Your task to perform on an android device: toggle notification dots Image 0: 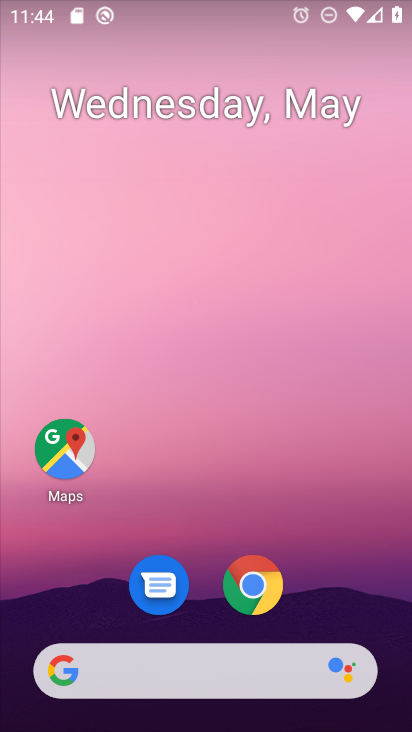
Step 0: drag from (355, 486) to (263, 25)
Your task to perform on an android device: toggle notification dots Image 1: 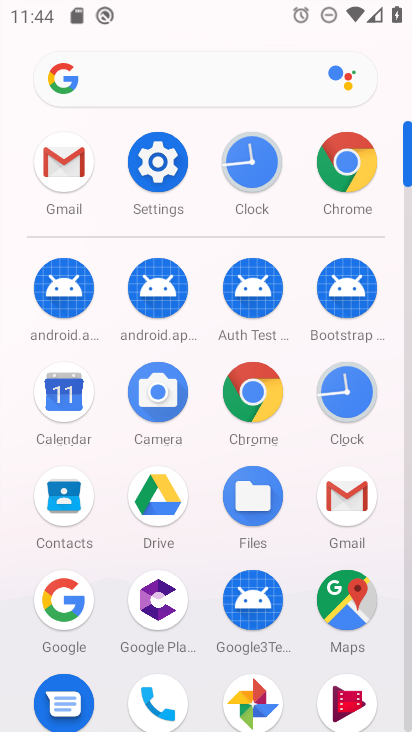
Step 1: click (161, 159)
Your task to perform on an android device: toggle notification dots Image 2: 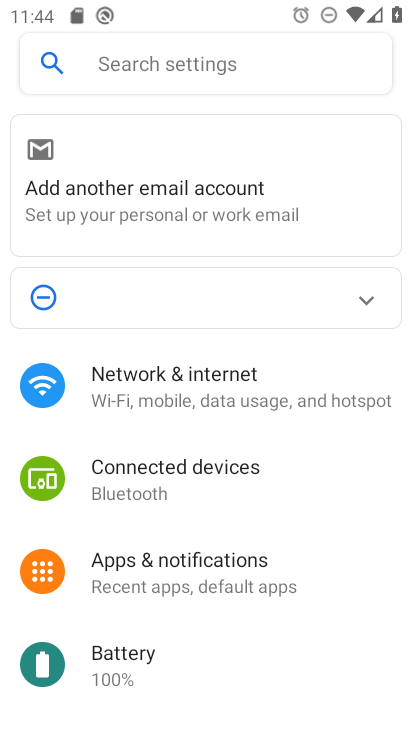
Step 2: click (197, 552)
Your task to perform on an android device: toggle notification dots Image 3: 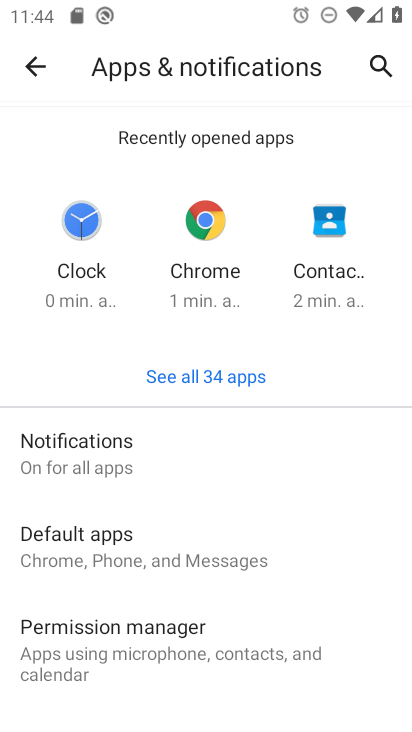
Step 3: click (171, 444)
Your task to perform on an android device: toggle notification dots Image 4: 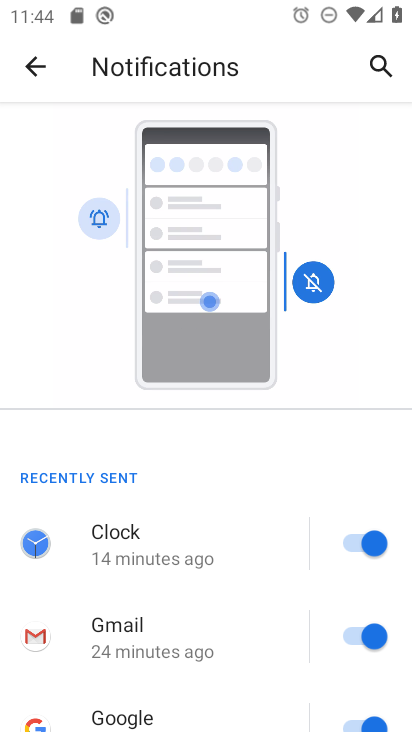
Step 4: drag from (220, 625) to (244, 141)
Your task to perform on an android device: toggle notification dots Image 5: 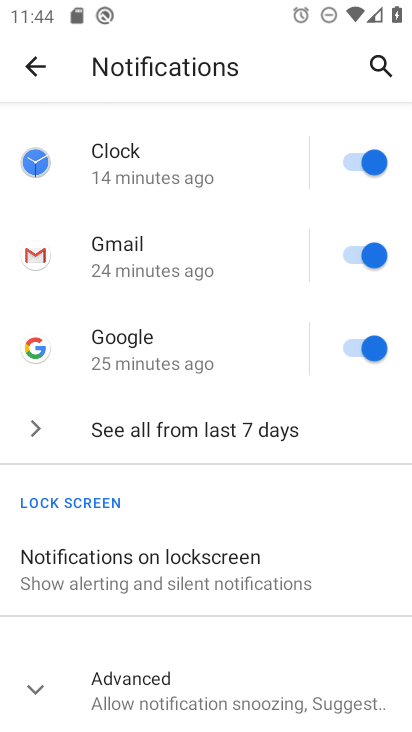
Step 5: click (28, 679)
Your task to perform on an android device: toggle notification dots Image 6: 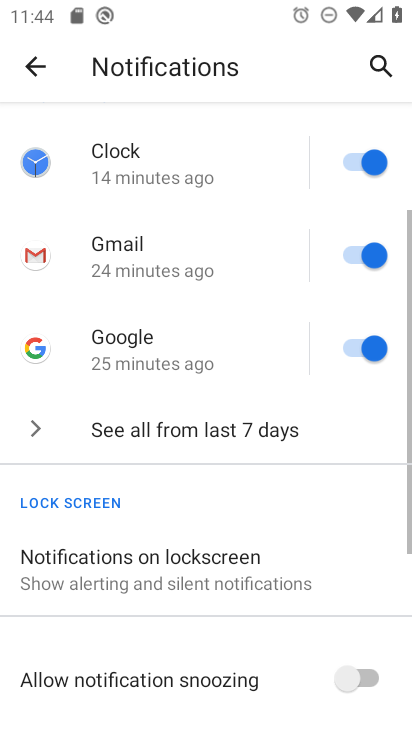
Step 6: drag from (195, 622) to (222, 193)
Your task to perform on an android device: toggle notification dots Image 7: 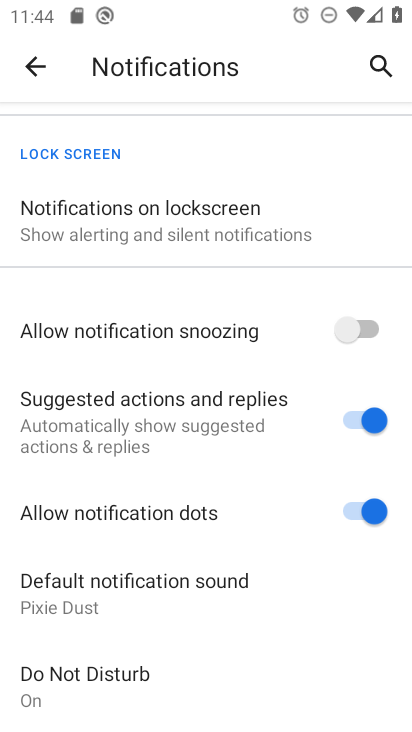
Step 7: click (351, 510)
Your task to perform on an android device: toggle notification dots Image 8: 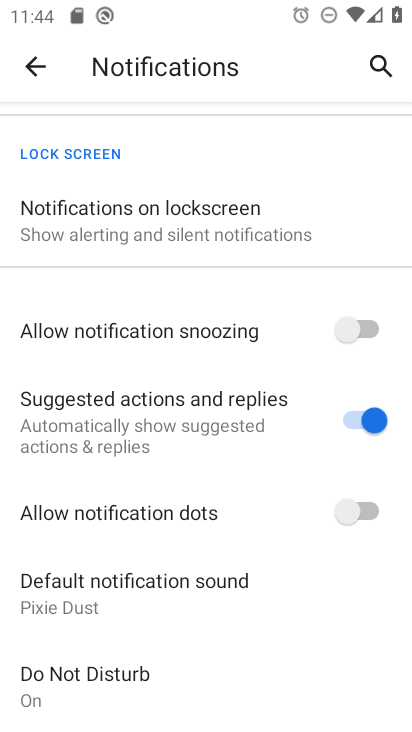
Step 8: task complete